Your task to perform on an android device: Go to privacy settings Image 0: 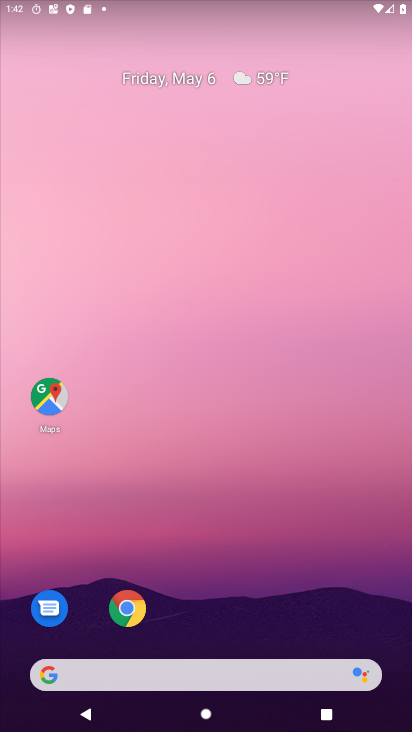
Step 0: click (164, 178)
Your task to perform on an android device: Go to privacy settings Image 1: 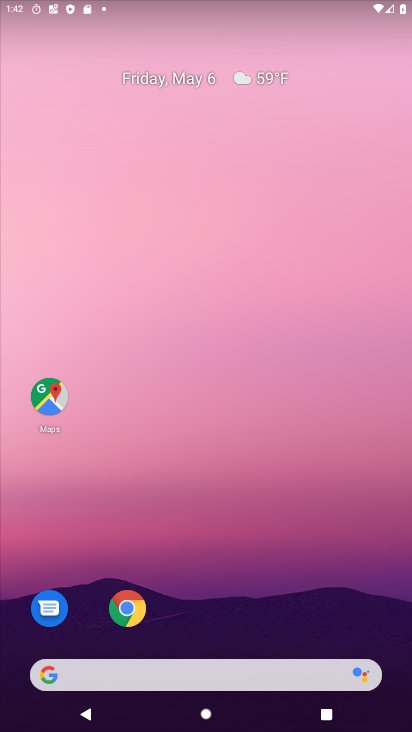
Step 1: drag from (162, 653) to (150, 116)
Your task to perform on an android device: Go to privacy settings Image 2: 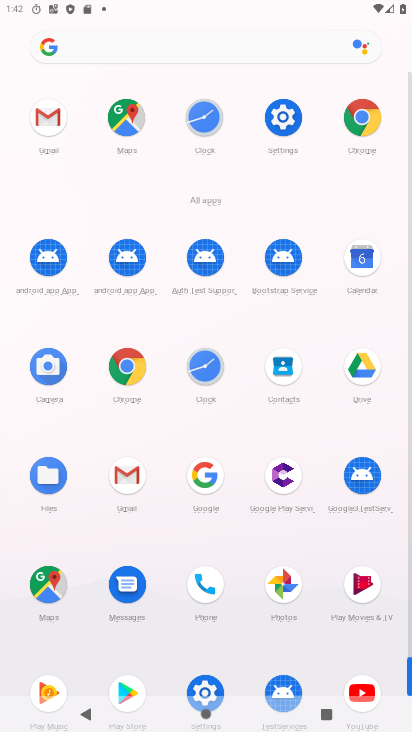
Step 2: click (207, 681)
Your task to perform on an android device: Go to privacy settings Image 3: 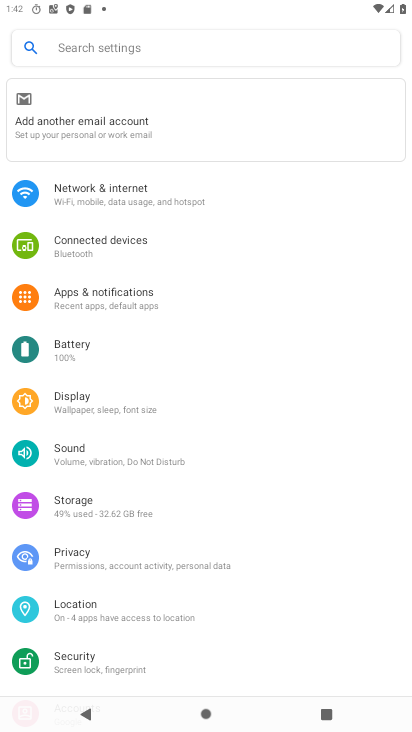
Step 3: click (104, 556)
Your task to perform on an android device: Go to privacy settings Image 4: 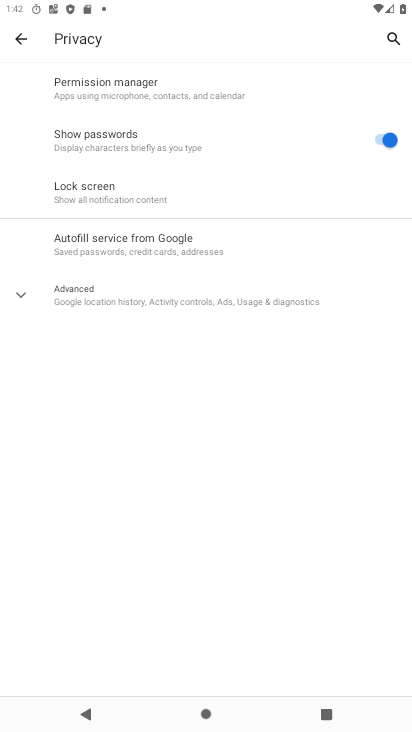
Step 4: task complete